Your task to perform on an android device: Go to calendar. Show me events next week Image 0: 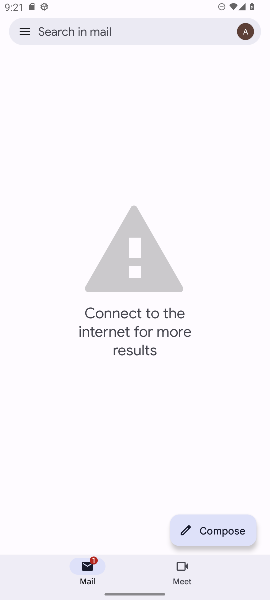
Step 0: press home button
Your task to perform on an android device: Go to calendar. Show me events next week Image 1: 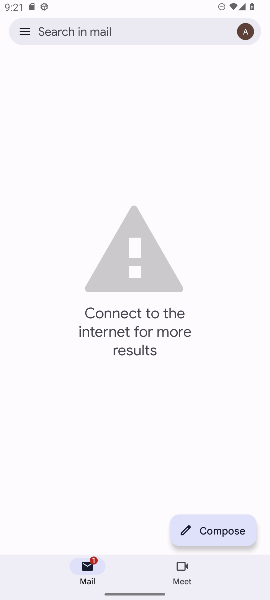
Step 1: press home button
Your task to perform on an android device: Go to calendar. Show me events next week Image 2: 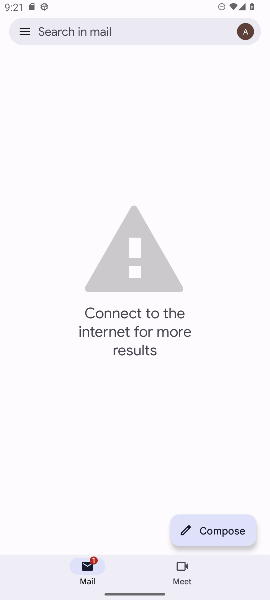
Step 2: press home button
Your task to perform on an android device: Go to calendar. Show me events next week Image 3: 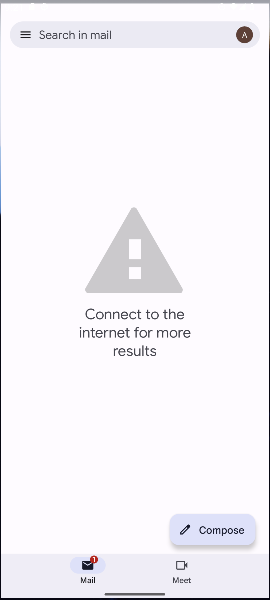
Step 3: press home button
Your task to perform on an android device: Go to calendar. Show me events next week Image 4: 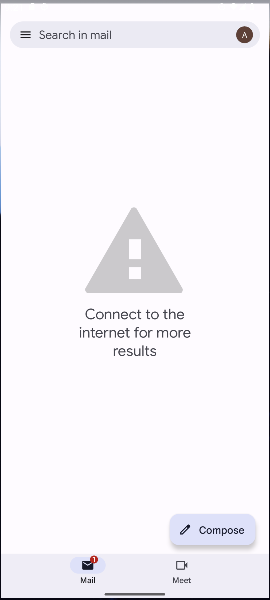
Step 4: press home button
Your task to perform on an android device: Go to calendar. Show me events next week Image 5: 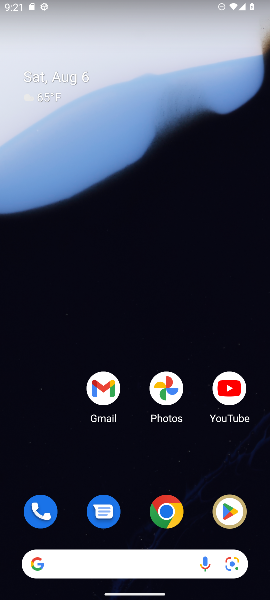
Step 5: drag from (115, 448) to (156, 8)
Your task to perform on an android device: Go to calendar. Show me events next week Image 6: 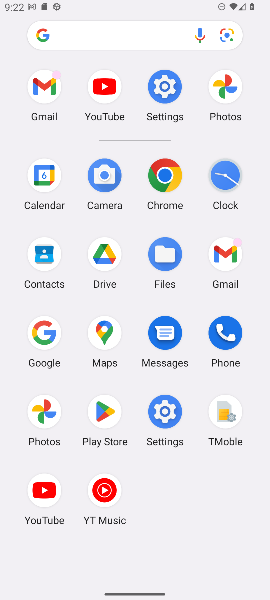
Step 6: click (56, 180)
Your task to perform on an android device: Go to calendar. Show me events next week Image 7: 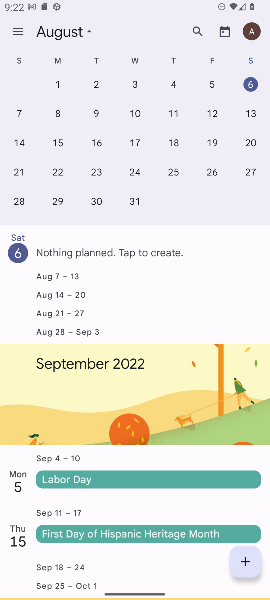
Step 7: click (245, 116)
Your task to perform on an android device: Go to calendar. Show me events next week Image 8: 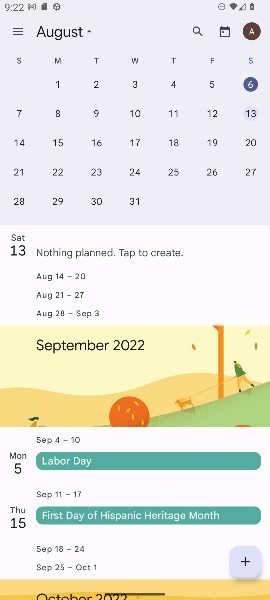
Step 8: task complete